Your task to perform on an android device: turn on wifi Image 0: 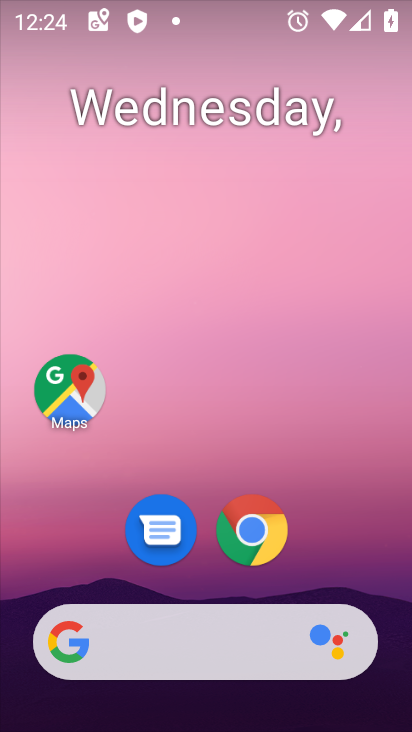
Step 0: drag from (200, 535) to (223, 235)
Your task to perform on an android device: turn on wifi Image 1: 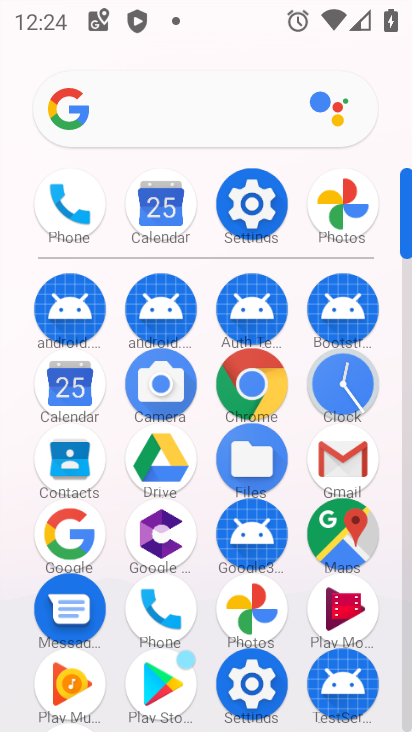
Step 1: click (248, 202)
Your task to perform on an android device: turn on wifi Image 2: 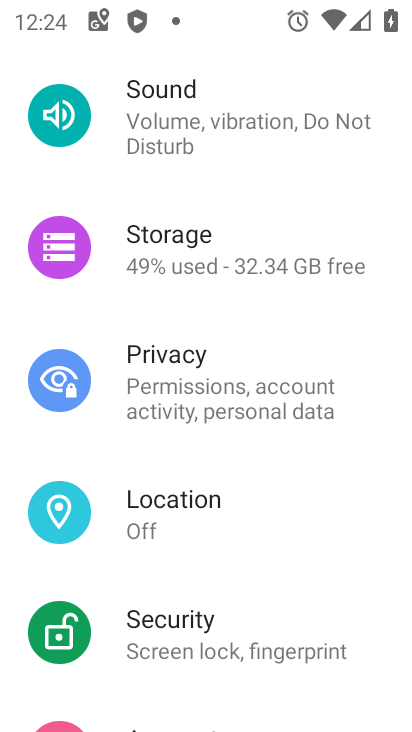
Step 2: drag from (223, 174) to (213, 729)
Your task to perform on an android device: turn on wifi Image 3: 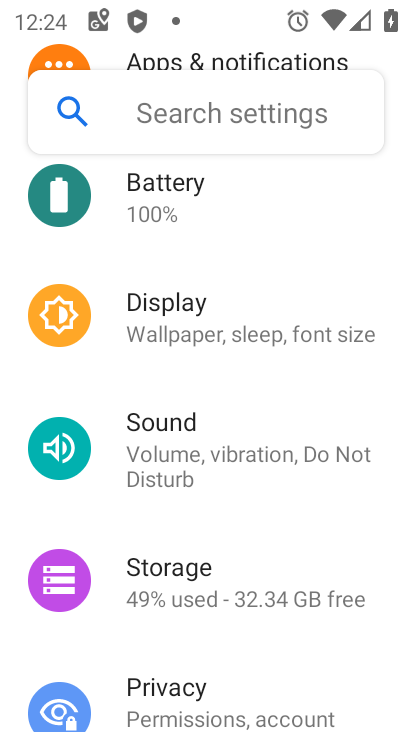
Step 3: drag from (232, 240) to (255, 651)
Your task to perform on an android device: turn on wifi Image 4: 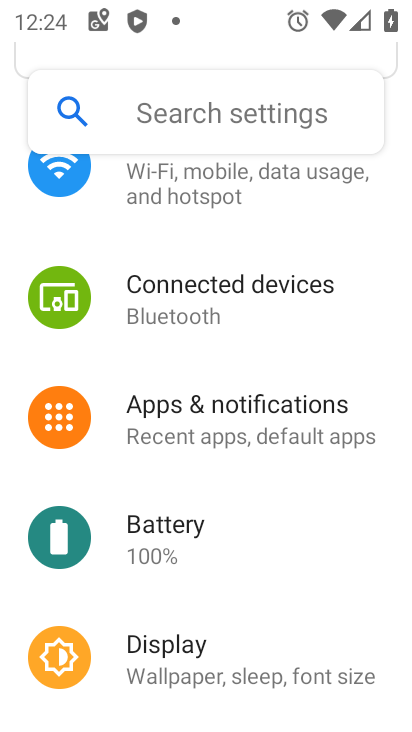
Step 4: drag from (205, 223) to (234, 525)
Your task to perform on an android device: turn on wifi Image 5: 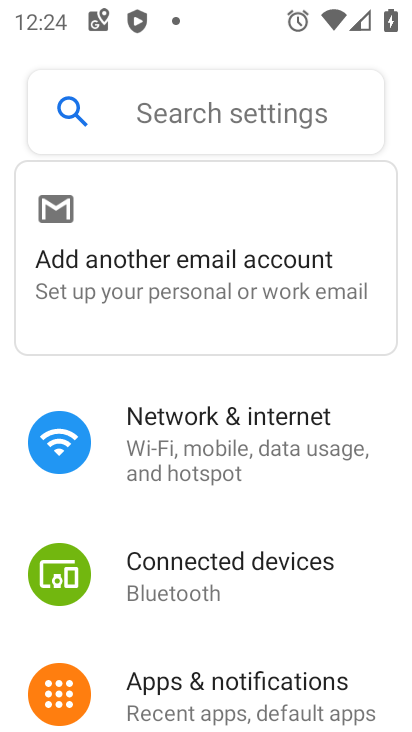
Step 5: click (194, 442)
Your task to perform on an android device: turn on wifi Image 6: 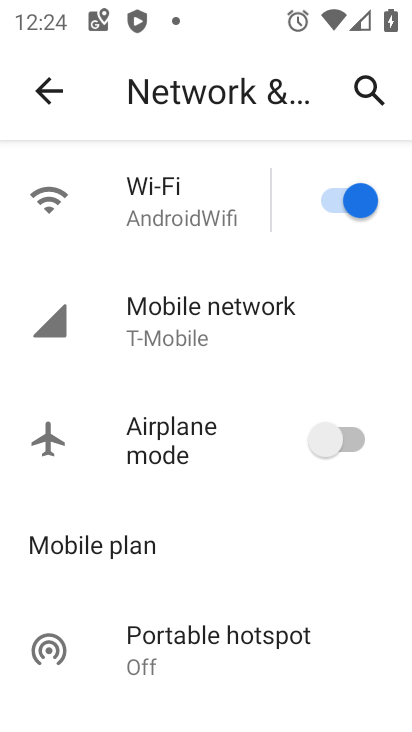
Step 6: task complete